Your task to perform on an android device: Check the weather Image 0: 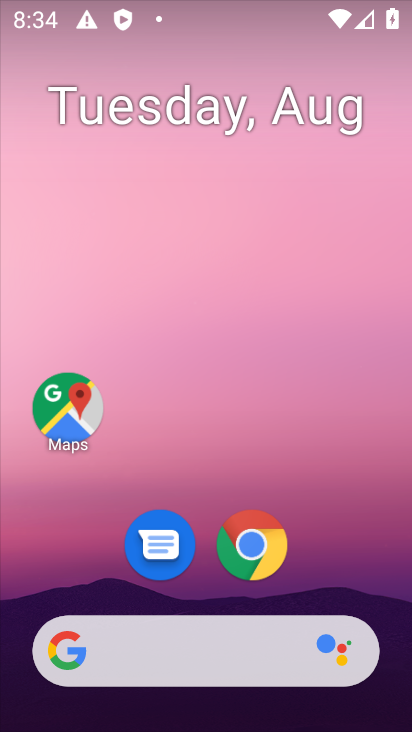
Step 0: click (148, 635)
Your task to perform on an android device: Check the weather Image 1: 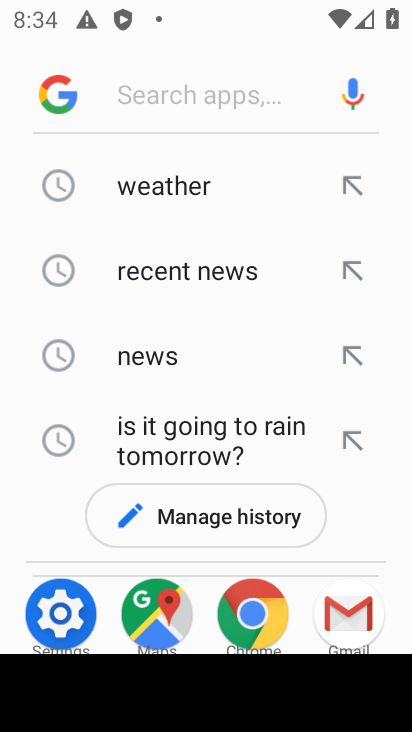
Step 1: click (140, 188)
Your task to perform on an android device: Check the weather Image 2: 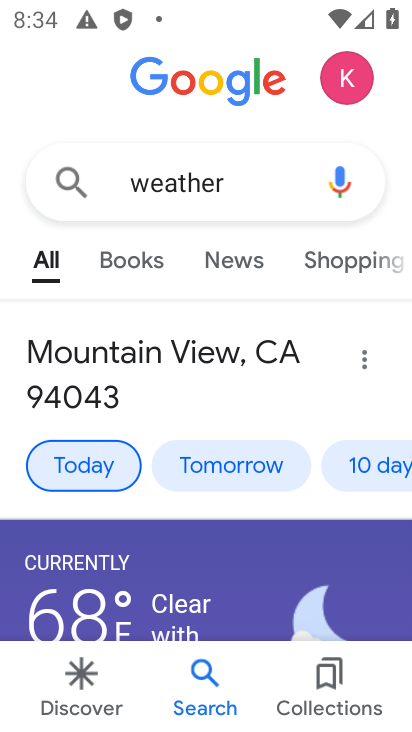
Step 2: task complete